Your task to perform on an android device: Open the map Image 0: 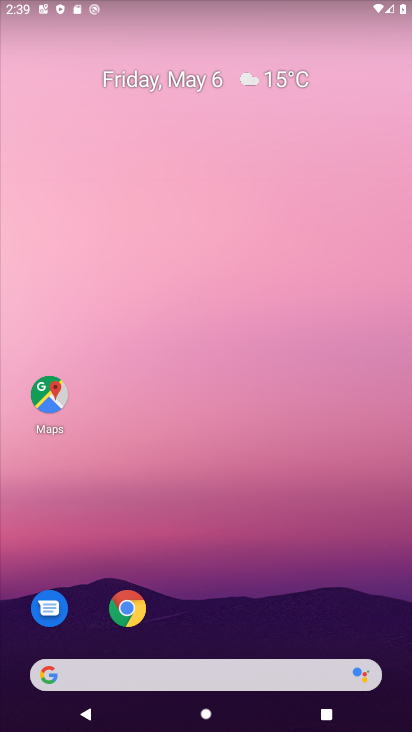
Step 0: click (49, 390)
Your task to perform on an android device: Open the map Image 1: 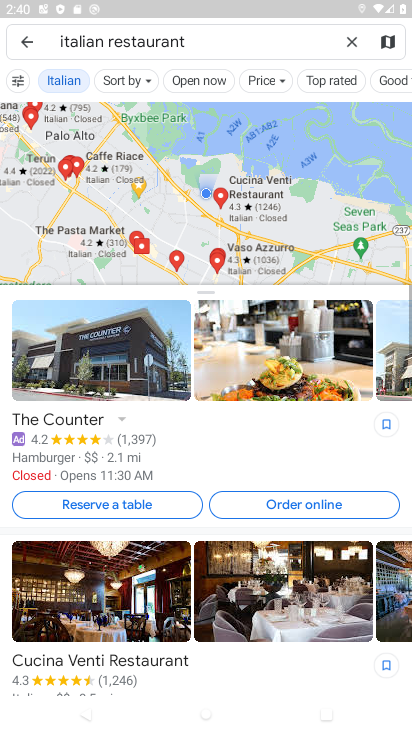
Step 1: task complete